Your task to perform on an android device: toggle javascript in the chrome app Image 0: 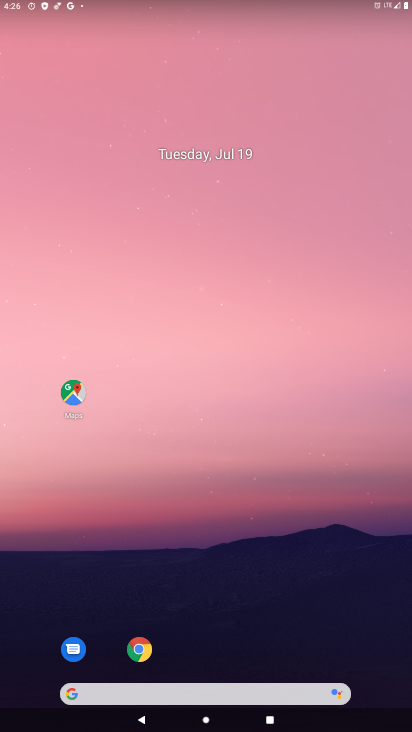
Step 0: drag from (370, 636) to (245, 132)
Your task to perform on an android device: toggle javascript in the chrome app Image 1: 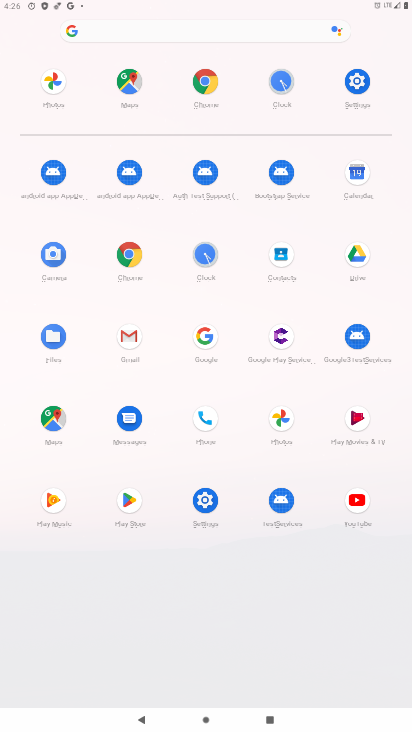
Step 1: click (201, 89)
Your task to perform on an android device: toggle javascript in the chrome app Image 2: 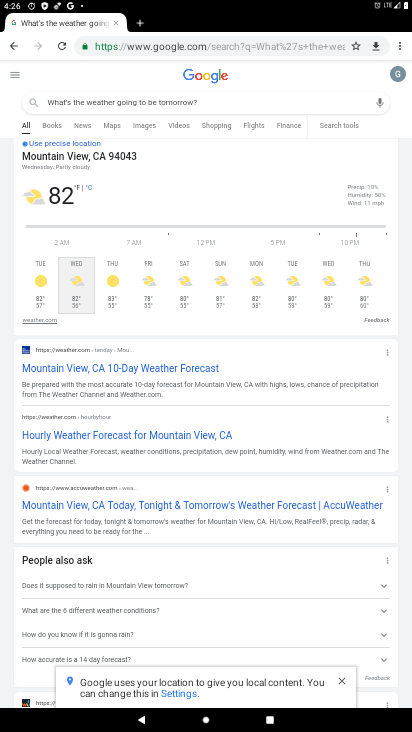
Step 2: click (403, 52)
Your task to perform on an android device: toggle javascript in the chrome app Image 3: 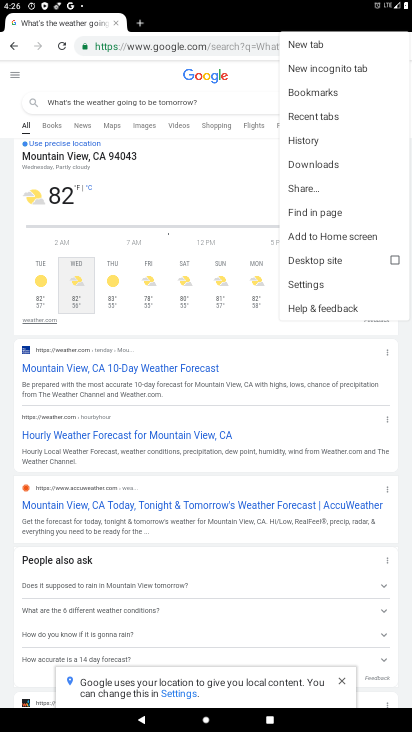
Step 3: click (322, 282)
Your task to perform on an android device: toggle javascript in the chrome app Image 4: 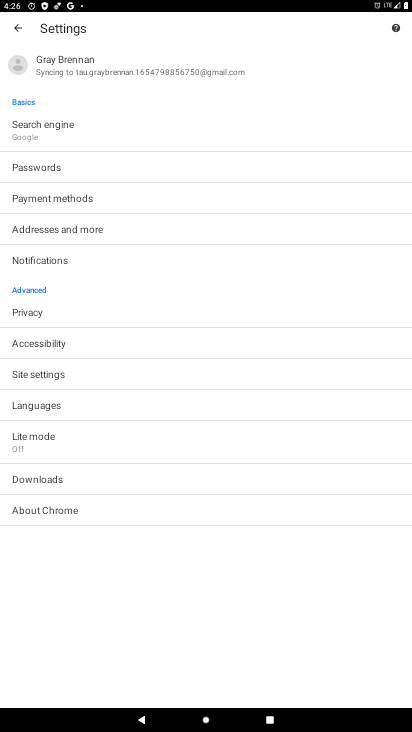
Step 4: click (91, 373)
Your task to perform on an android device: toggle javascript in the chrome app Image 5: 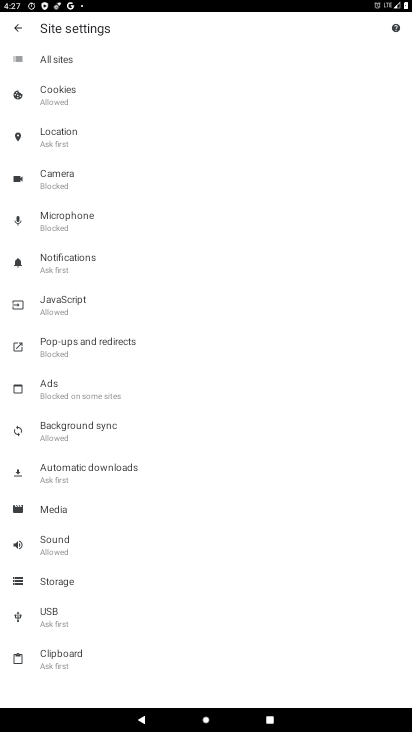
Step 5: click (91, 313)
Your task to perform on an android device: toggle javascript in the chrome app Image 6: 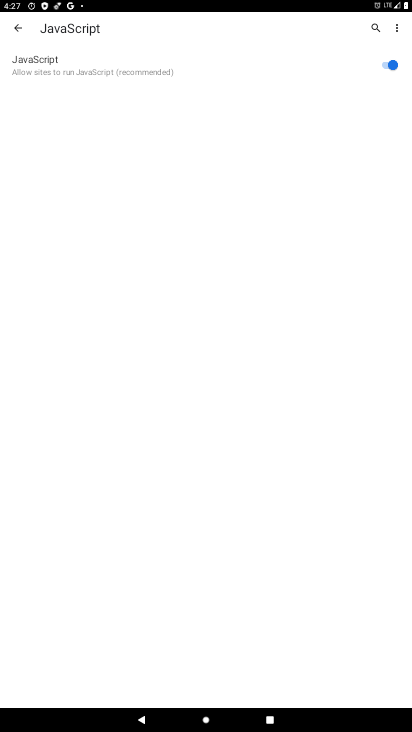
Step 6: click (391, 69)
Your task to perform on an android device: toggle javascript in the chrome app Image 7: 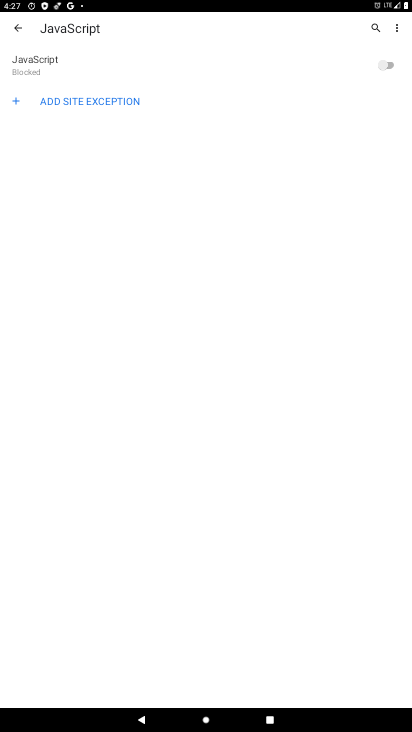
Step 7: task complete